Your task to perform on an android device: What's the weather today? Image 0: 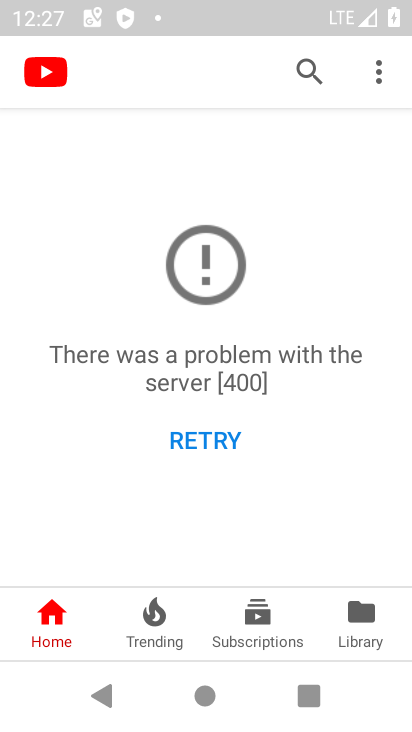
Step 0: press home button
Your task to perform on an android device: What's the weather today? Image 1: 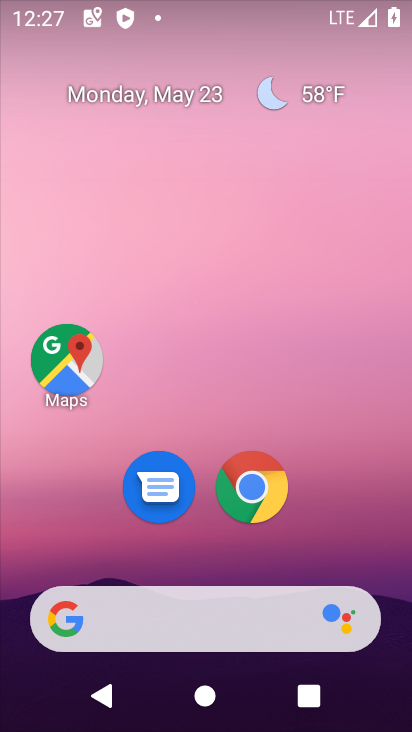
Step 1: click (312, 90)
Your task to perform on an android device: What's the weather today? Image 2: 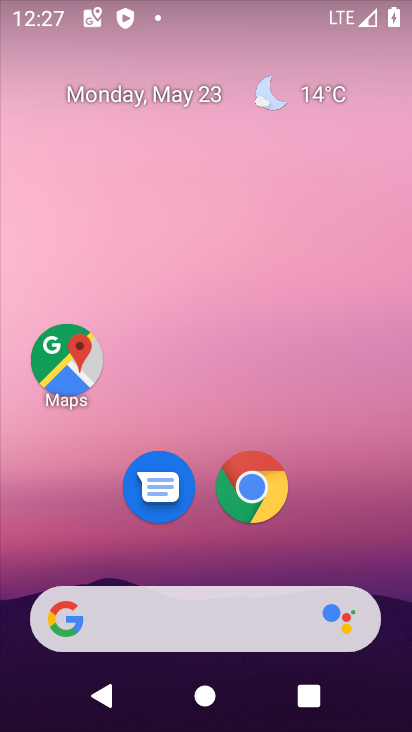
Step 2: click (316, 96)
Your task to perform on an android device: What's the weather today? Image 3: 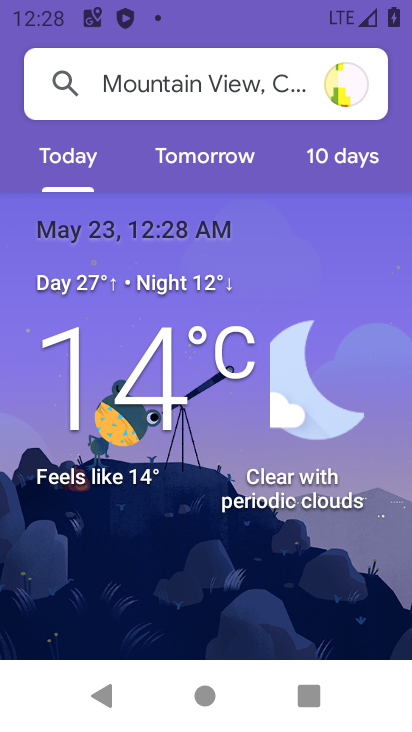
Step 3: task complete